Your task to perform on an android device: Search for Italian restaurants on Maps Image 0: 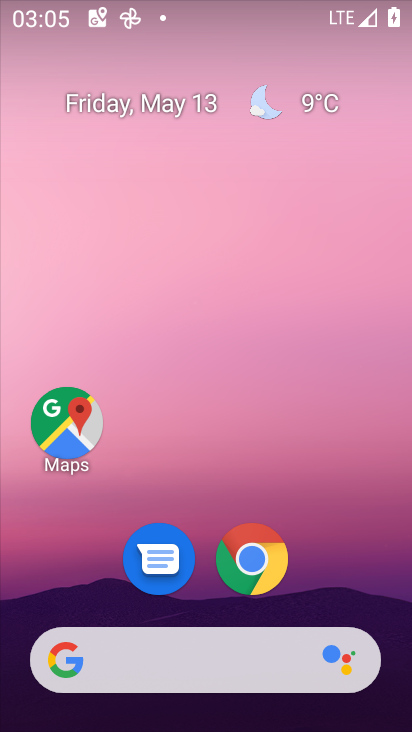
Step 0: click (73, 433)
Your task to perform on an android device: Search for Italian restaurants on Maps Image 1: 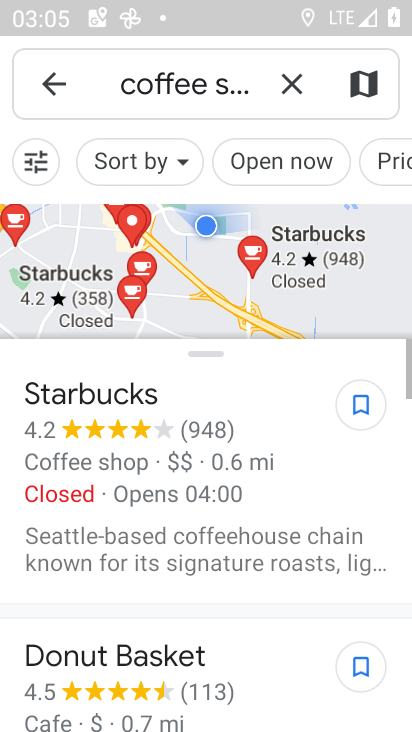
Step 1: click (286, 80)
Your task to perform on an android device: Search for Italian restaurants on Maps Image 2: 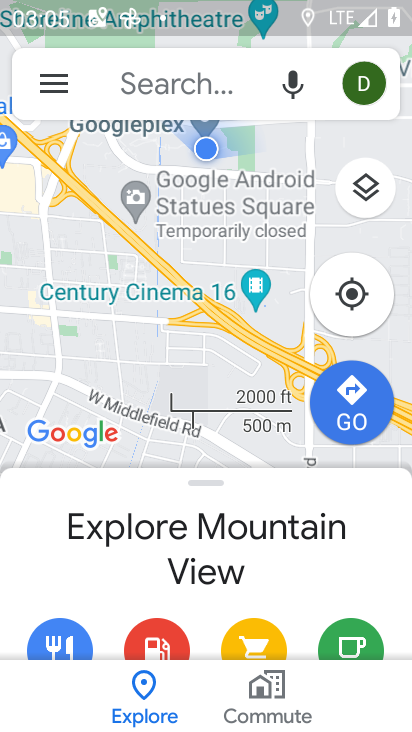
Step 2: click (141, 78)
Your task to perform on an android device: Search for Italian restaurants on Maps Image 3: 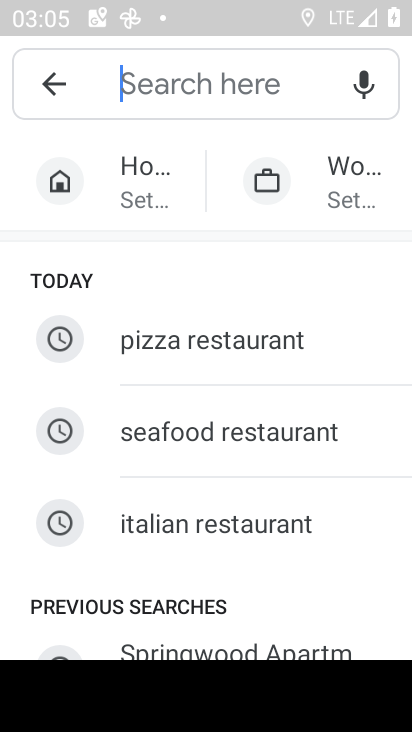
Step 3: type "Italian restaurants"
Your task to perform on an android device: Search for Italian restaurants on Maps Image 4: 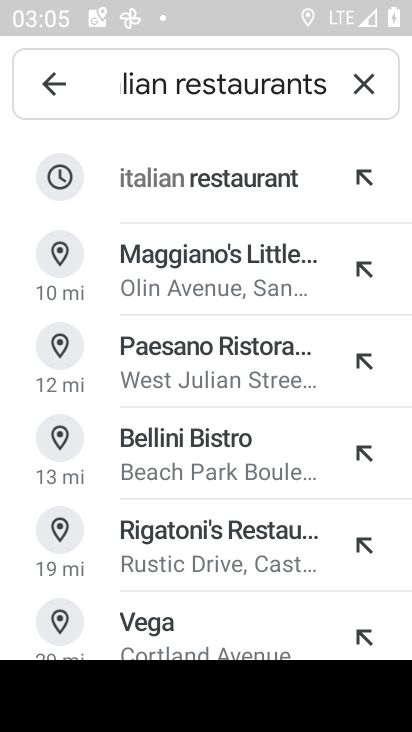
Step 4: click (148, 174)
Your task to perform on an android device: Search for Italian restaurants on Maps Image 5: 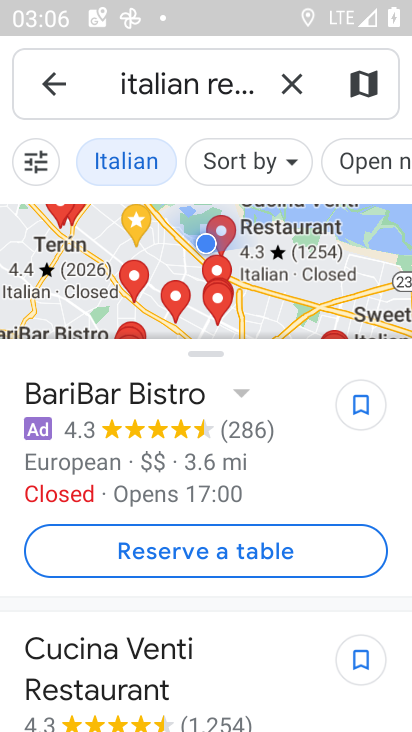
Step 5: task complete